Your task to perform on an android device: Check the news Image 0: 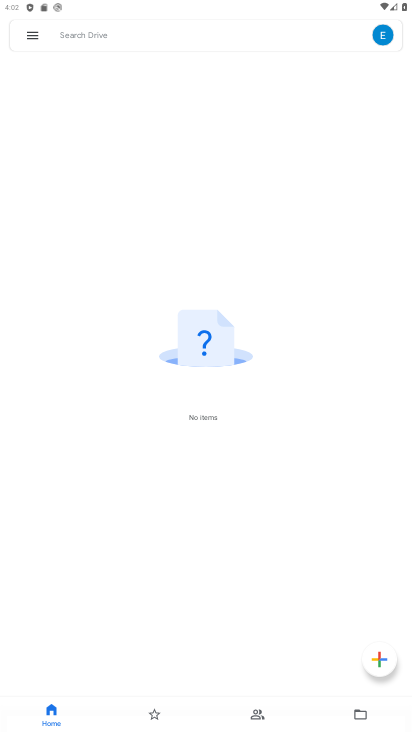
Step 0: press home button
Your task to perform on an android device: Check the news Image 1: 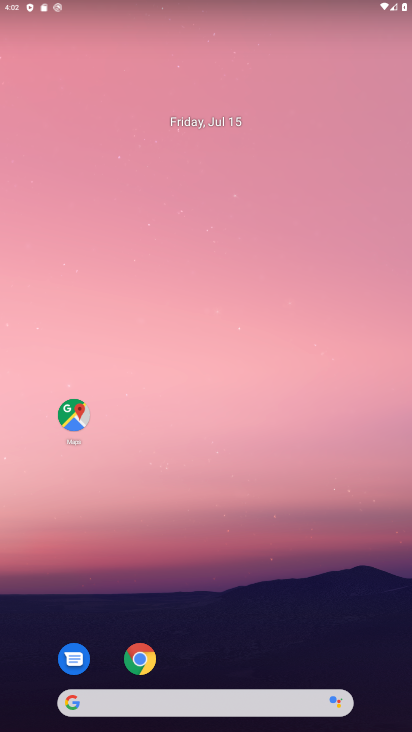
Step 1: click (102, 702)
Your task to perform on an android device: Check the news Image 2: 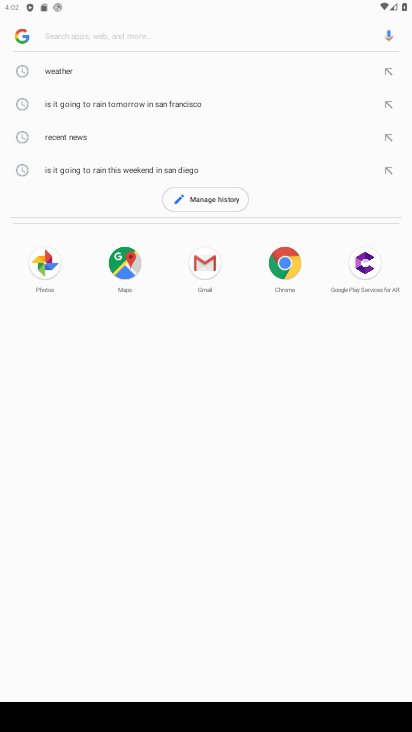
Step 2: click (23, 34)
Your task to perform on an android device: Check the news Image 3: 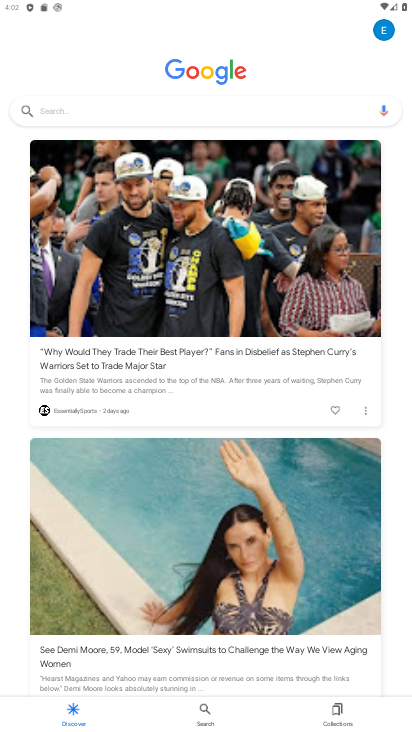
Step 3: task complete